Your task to perform on an android device: Clear the shopping cart on amazon. Search for "razer huntsman" on amazon, select the first entry, add it to the cart, then select checkout. Image 0: 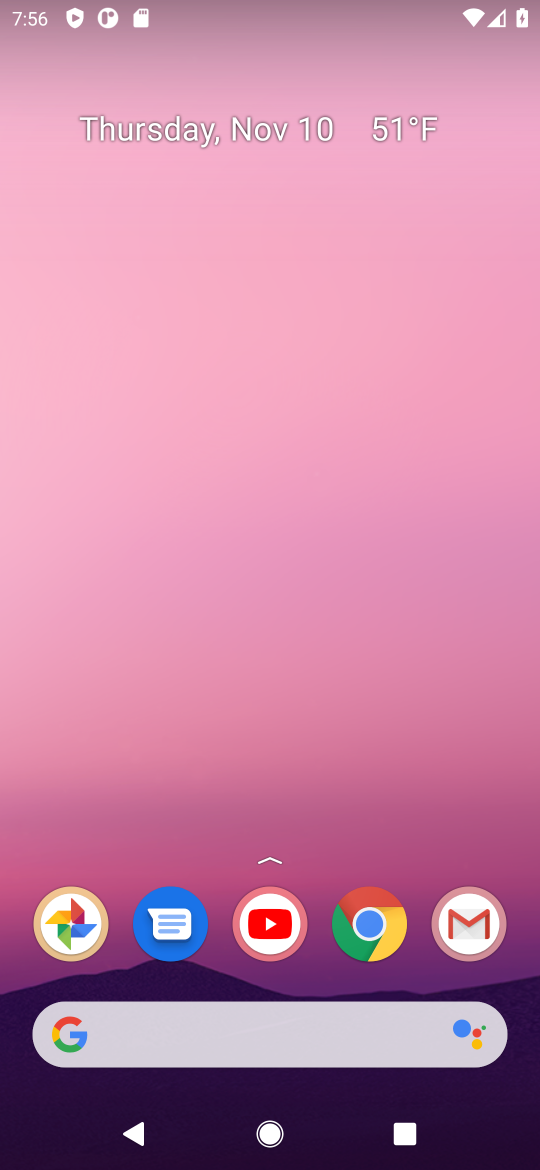
Step 0: click (369, 932)
Your task to perform on an android device: Clear the shopping cart on amazon. Search for "razer huntsman" on amazon, select the first entry, add it to the cart, then select checkout. Image 1: 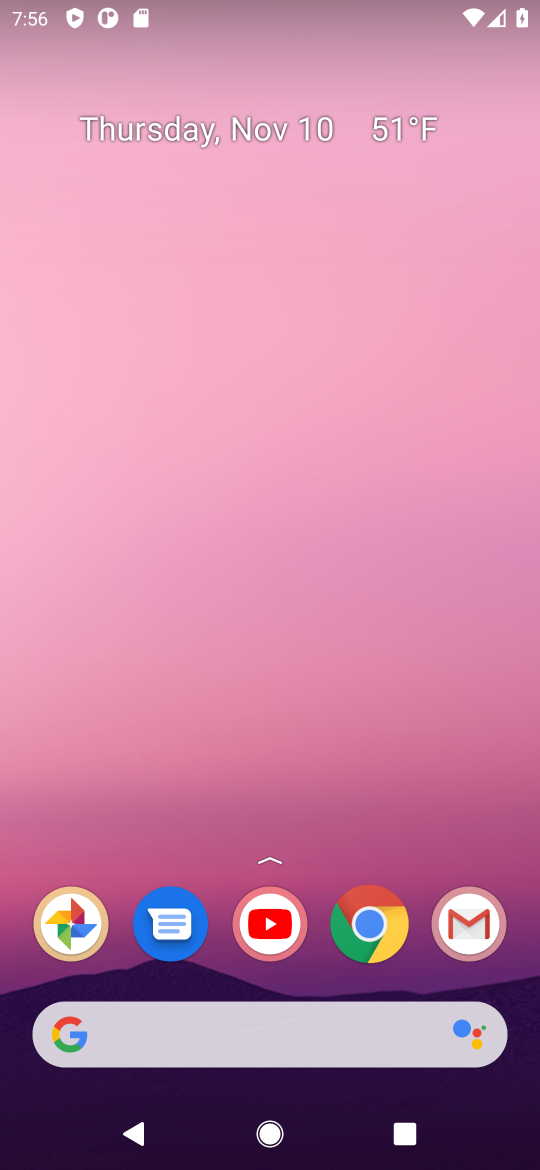
Step 1: click (364, 932)
Your task to perform on an android device: Clear the shopping cart on amazon. Search for "razer huntsman" on amazon, select the first entry, add it to the cart, then select checkout. Image 2: 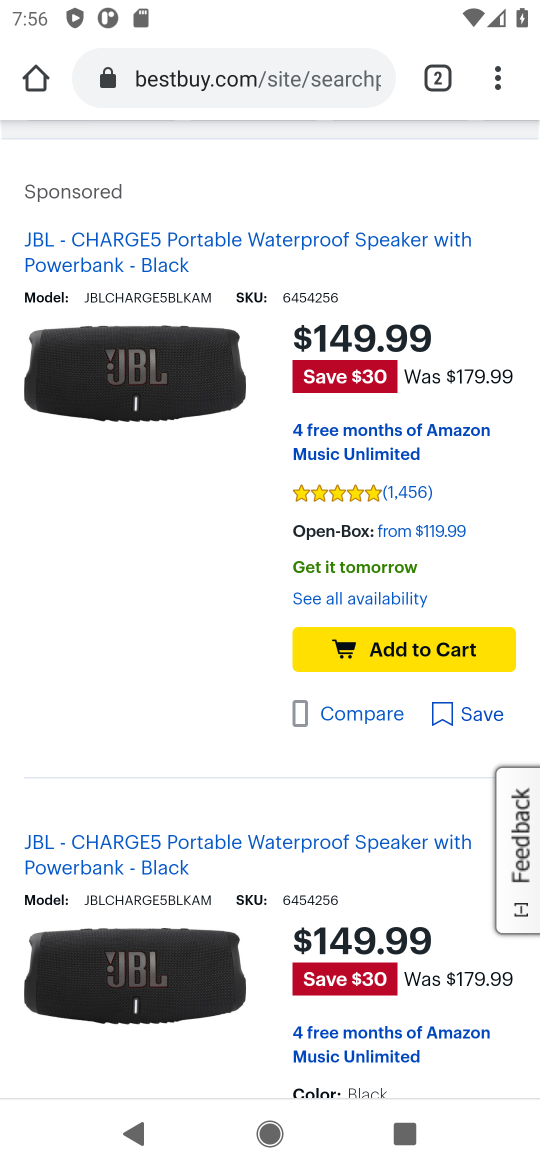
Step 2: click (198, 85)
Your task to perform on an android device: Clear the shopping cart on amazon. Search for "razer huntsman" on amazon, select the first entry, add it to the cart, then select checkout. Image 3: 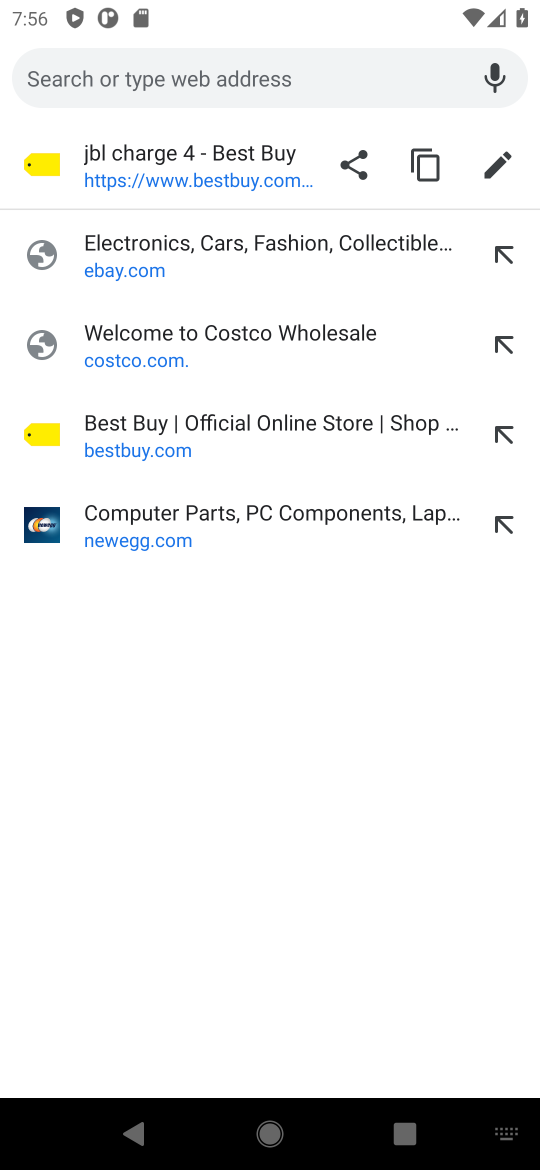
Step 3: type "amazon.com"
Your task to perform on an android device: Clear the shopping cart on amazon. Search for "razer huntsman" on amazon, select the first entry, add it to the cart, then select checkout. Image 4: 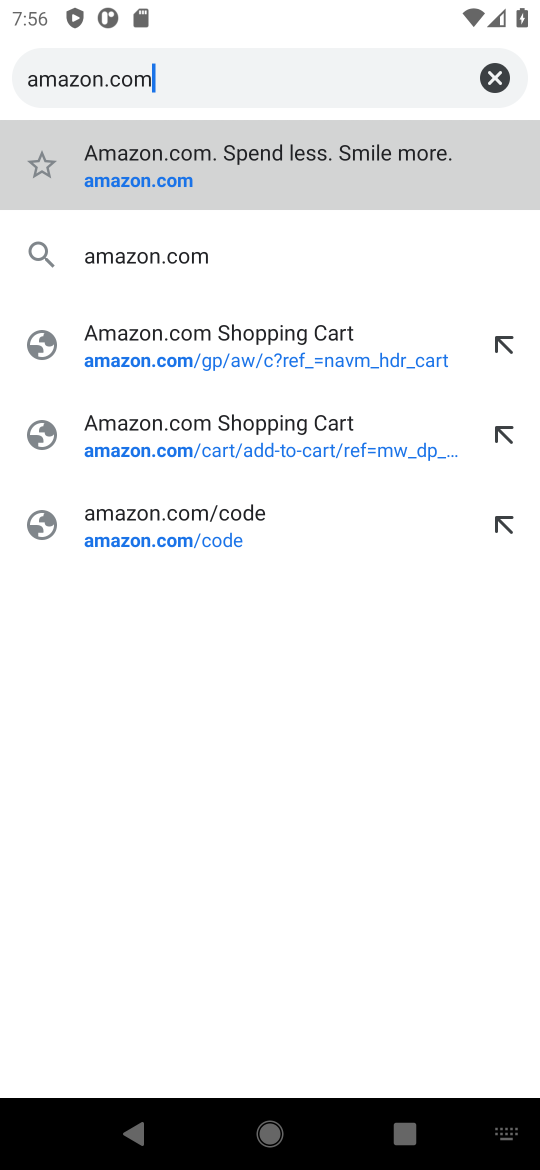
Step 4: click (149, 321)
Your task to perform on an android device: Clear the shopping cart on amazon. Search for "razer huntsman" on amazon, select the first entry, add it to the cart, then select checkout. Image 5: 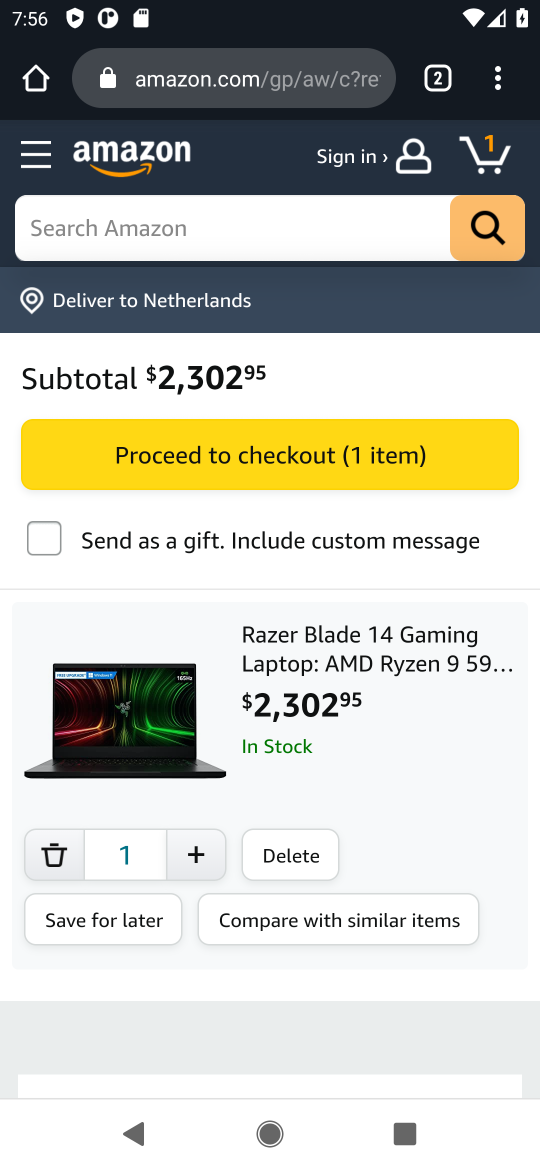
Step 5: click (48, 858)
Your task to perform on an android device: Clear the shopping cart on amazon. Search for "razer huntsman" on amazon, select the first entry, add it to the cart, then select checkout. Image 6: 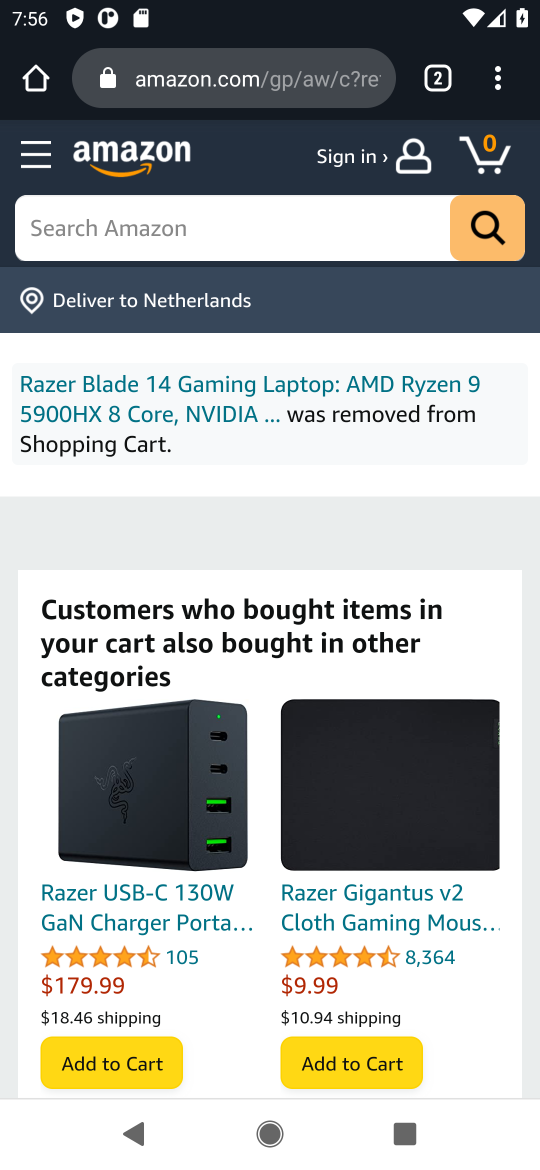
Step 6: click (197, 224)
Your task to perform on an android device: Clear the shopping cart on amazon. Search for "razer huntsman" on amazon, select the first entry, add it to the cart, then select checkout. Image 7: 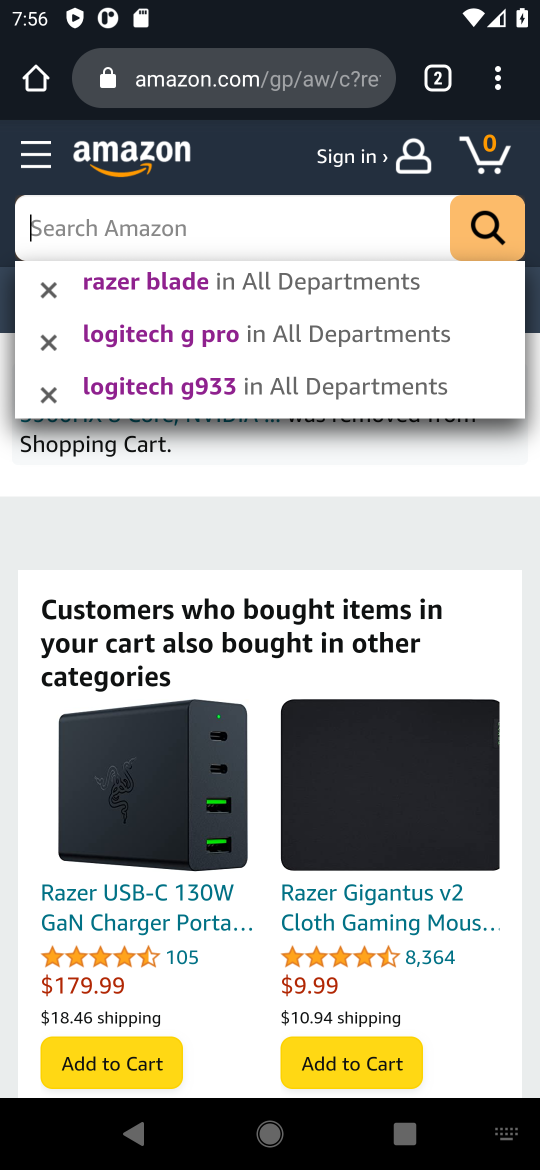
Step 7: type "razer huntsman"
Your task to perform on an android device: Clear the shopping cart on amazon. Search for "razer huntsman" on amazon, select the first entry, add it to the cart, then select checkout. Image 8: 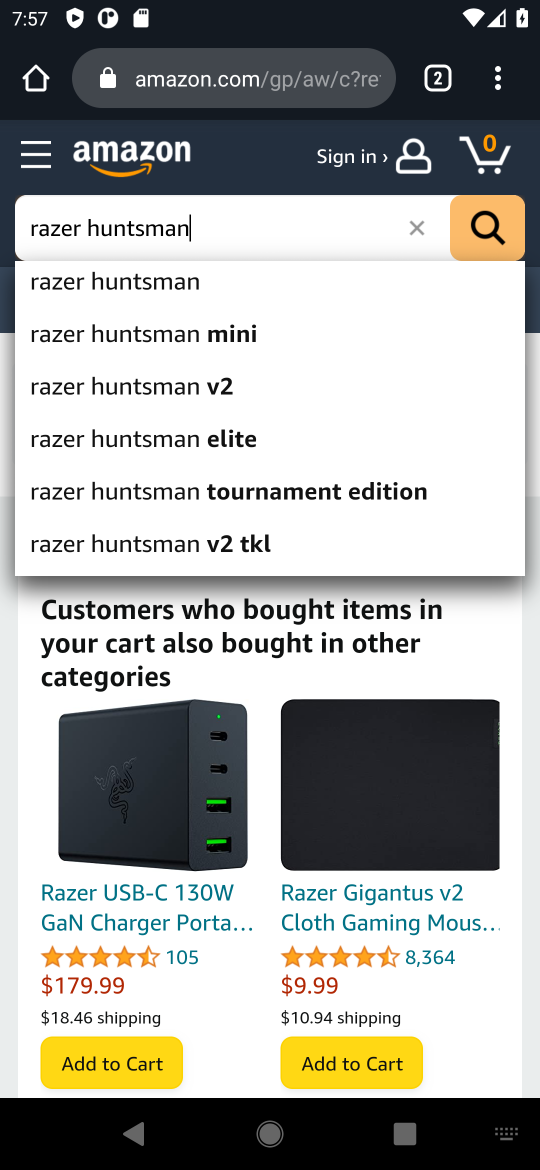
Step 8: click (129, 285)
Your task to perform on an android device: Clear the shopping cart on amazon. Search for "razer huntsman" on amazon, select the first entry, add it to the cart, then select checkout. Image 9: 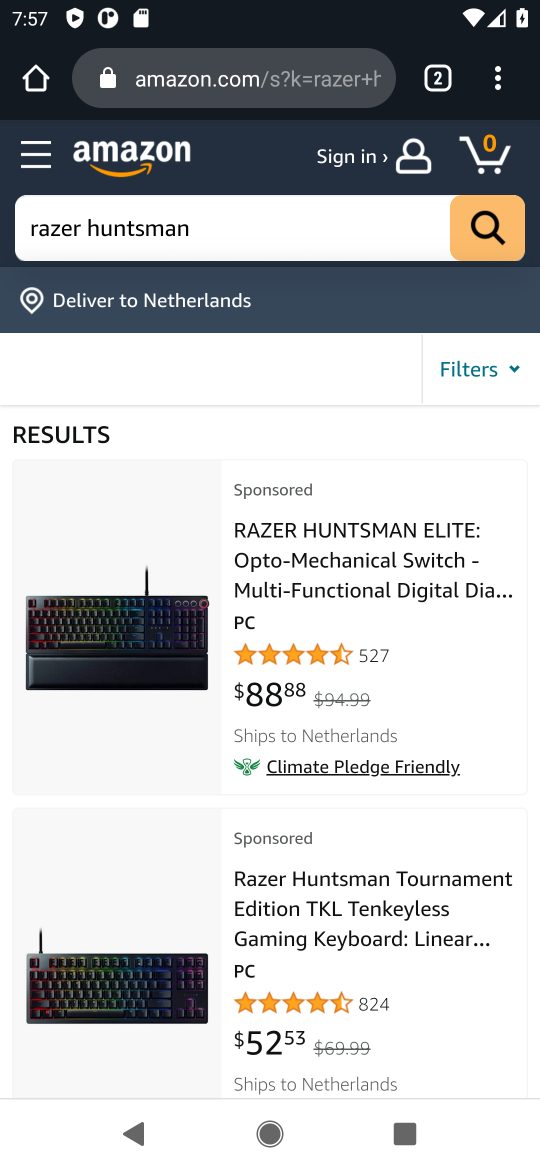
Step 9: click (137, 666)
Your task to perform on an android device: Clear the shopping cart on amazon. Search for "razer huntsman" on amazon, select the first entry, add it to the cart, then select checkout. Image 10: 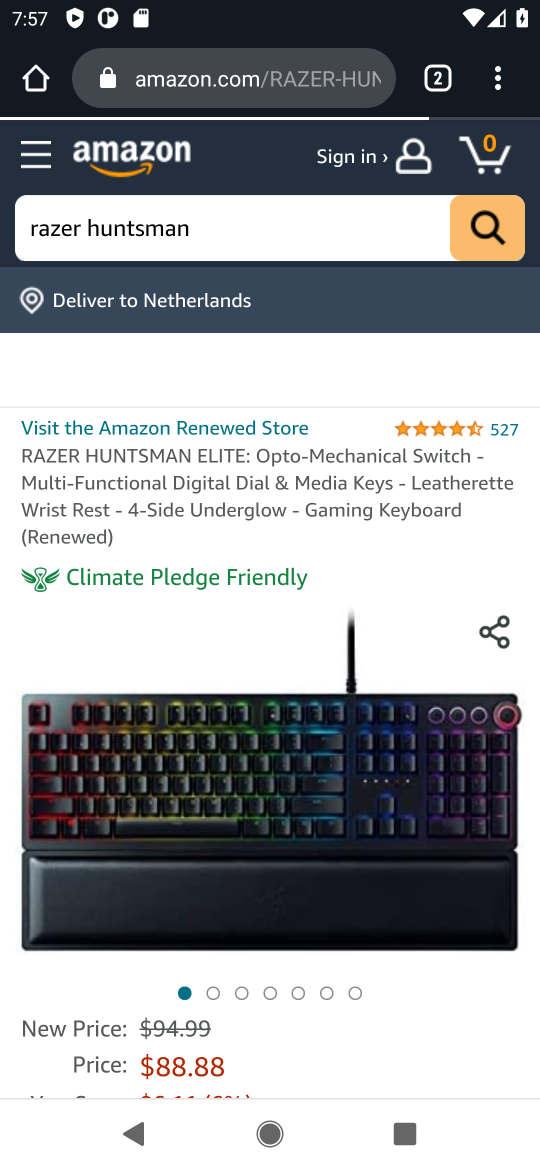
Step 10: drag from (213, 905) to (216, 597)
Your task to perform on an android device: Clear the shopping cart on amazon. Search for "razer huntsman" on amazon, select the first entry, add it to the cart, then select checkout. Image 11: 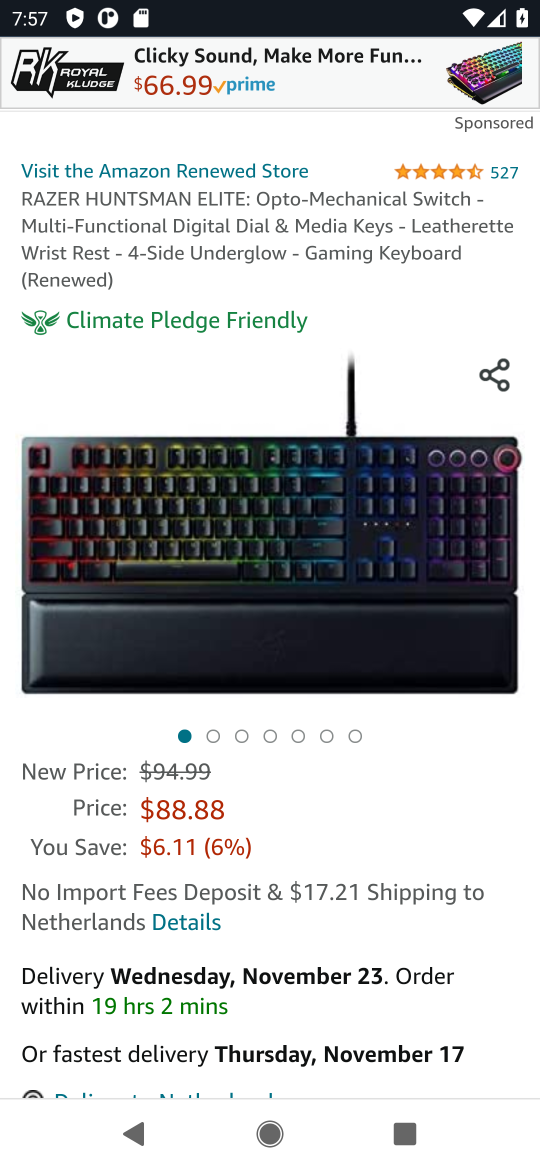
Step 11: drag from (232, 996) to (232, 595)
Your task to perform on an android device: Clear the shopping cart on amazon. Search for "razer huntsman" on amazon, select the first entry, add it to the cart, then select checkout. Image 12: 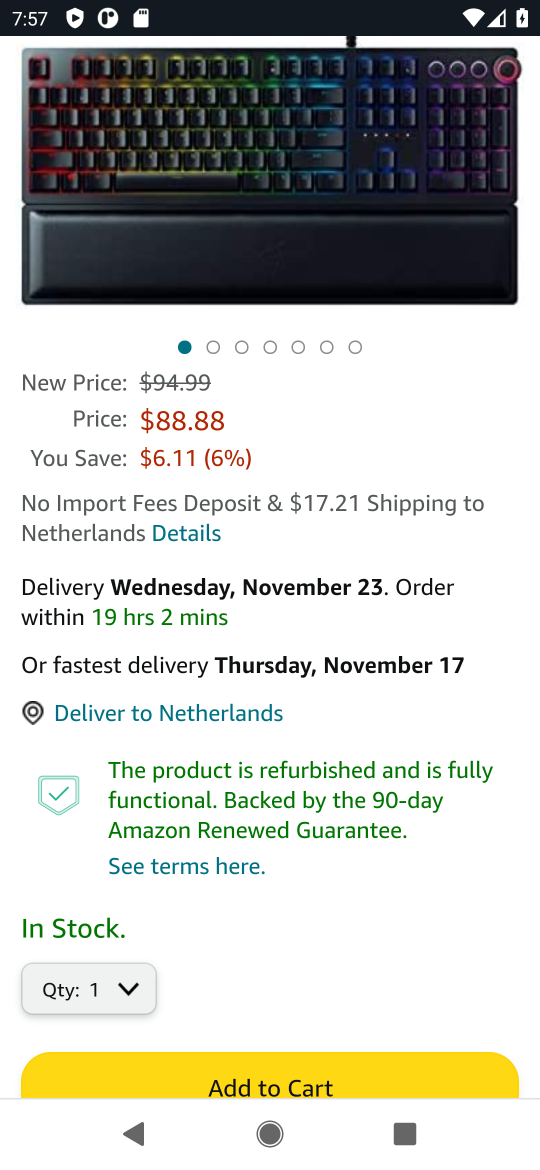
Step 12: drag from (211, 942) to (214, 682)
Your task to perform on an android device: Clear the shopping cart on amazon. Search for "razer huntsman" on amazon, select the first entry, add it to the cart, then select checkout. Image 13: 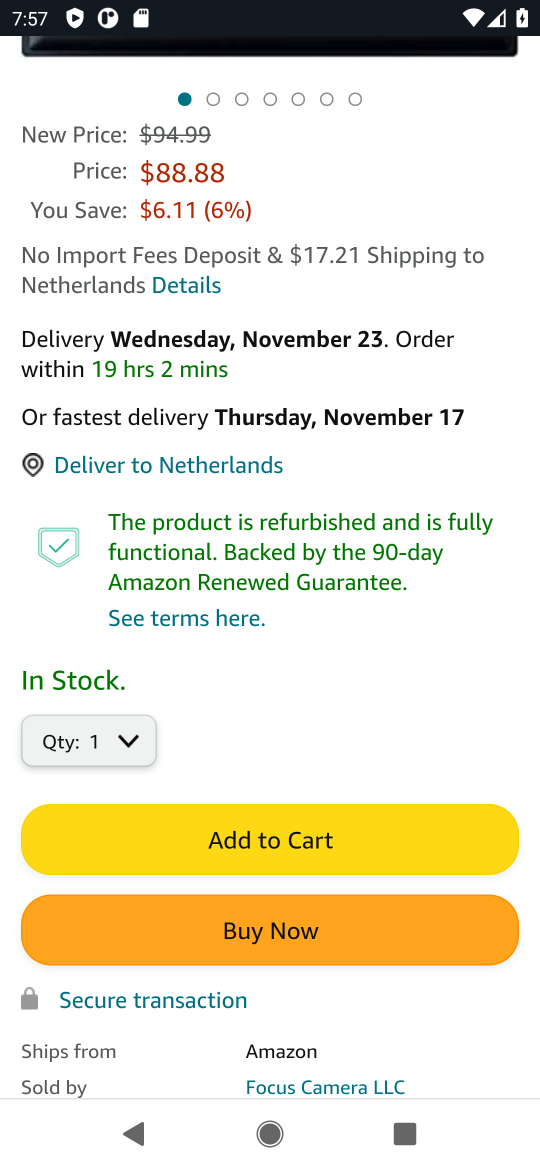
Step 13: click (223, 833)
Your task to perform on an android device: Clear the shopping cart on amazon. Search for "razer huntsman" on amazon, select the first entry, add it to the cart, then select checkout. Image 14: 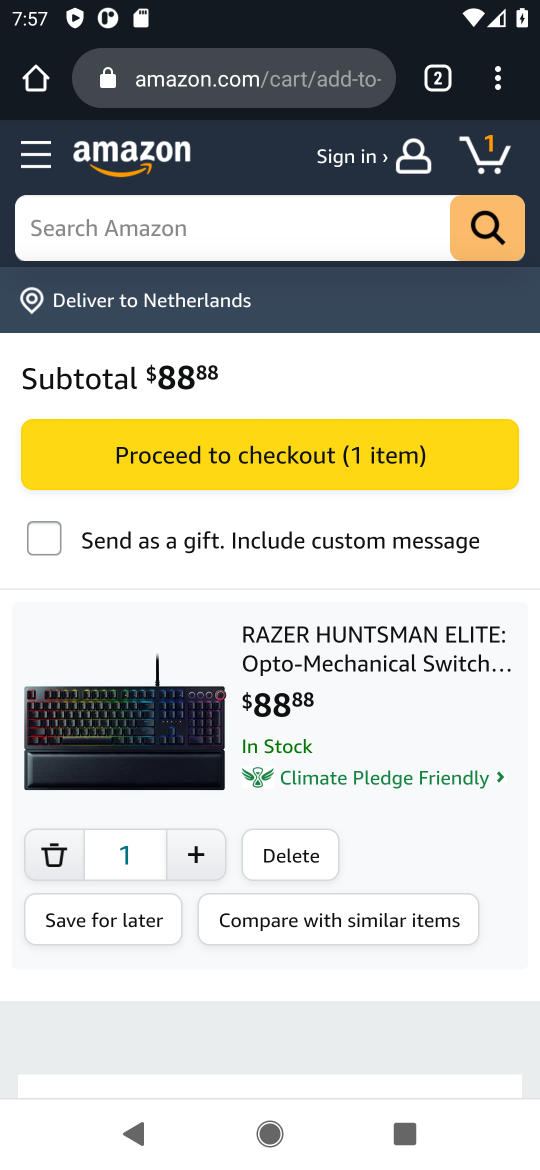
Step 14: click (238, 461)
Your task to perform on an android device: Clear the shopping cart on amazon. Search for "razer huntsman" on amazon, select the first entry, add it to the cart, then select checkout. Image 15: 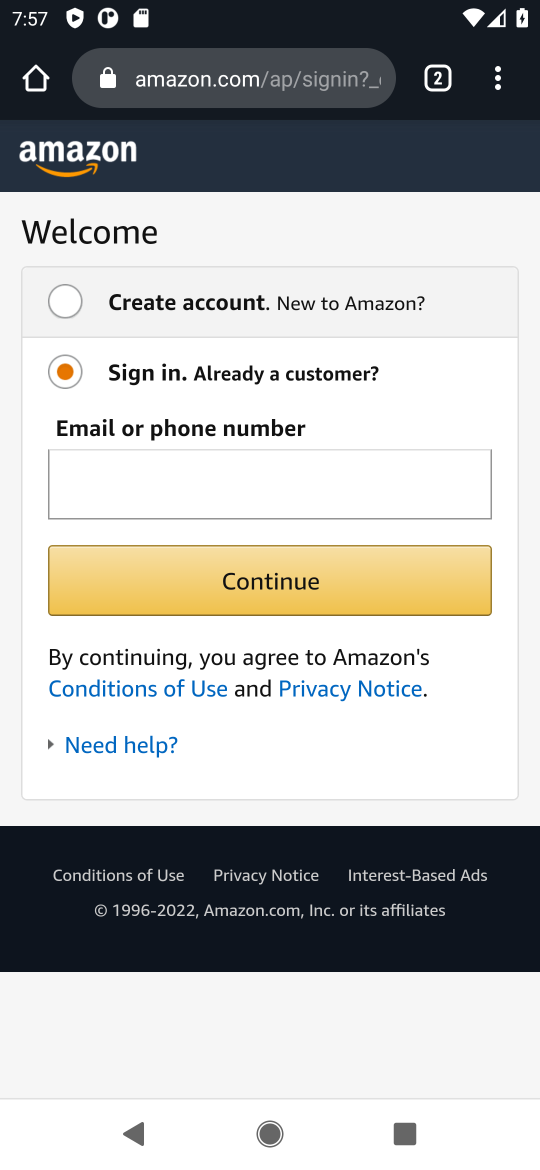
Step 15: task complete